Your task to perform on an android device: Open Google Chrome and open the bookmarks view Image 0: 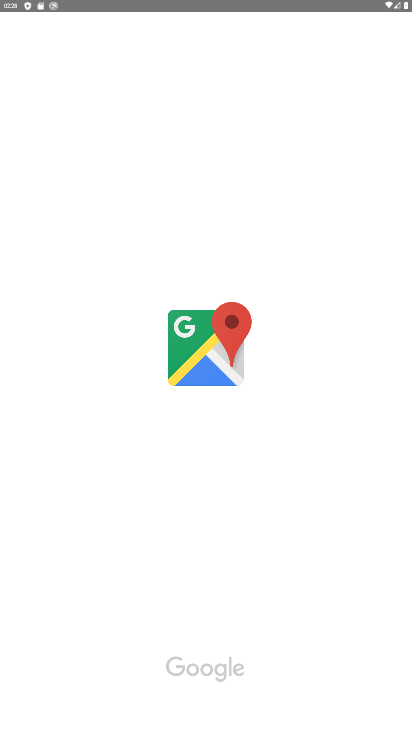
Step 0: click (130, 672)
Your task to perform on an android device: Open Google Chrome and open the bookmarks view Image 1: 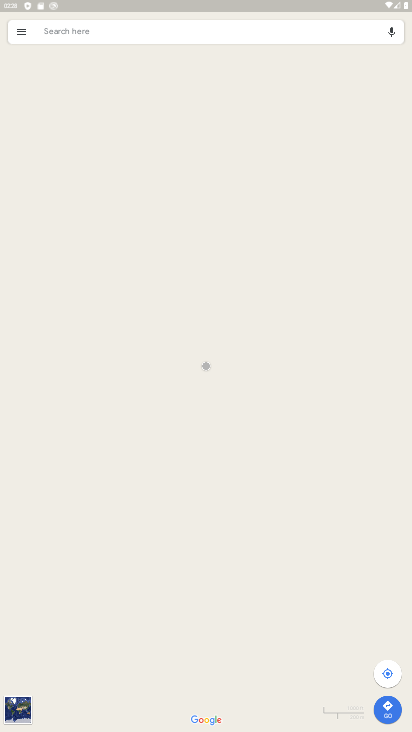
Step 1: press home button
Your task to perform on an android device: Open Google Chrome and open the bookmarks view Image 2: 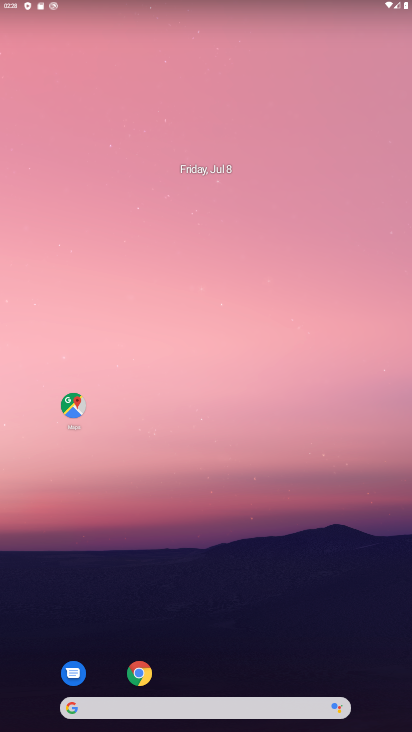
Step 2: click (134, 680)
Your task to perform on an android device: Open Google Chrome and open the bookmarks view Image 3: 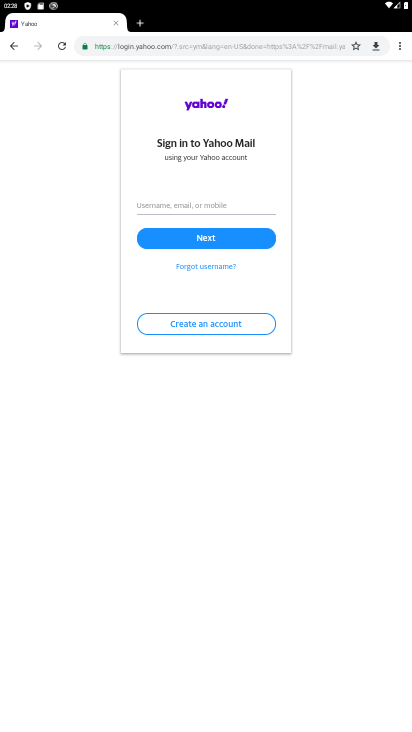
Step 3: task complete